Your task to perform on an android device: Open Chrome and go to settings Image 0: 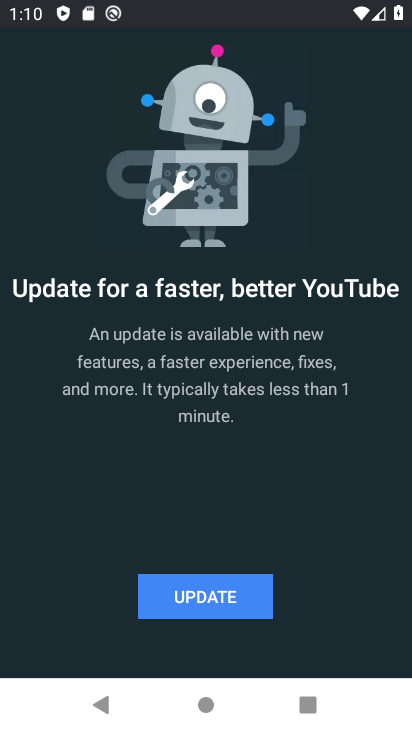
Step 0: press home button
Your task to perform on an android device: Open Chrome and go to settings Image 1: 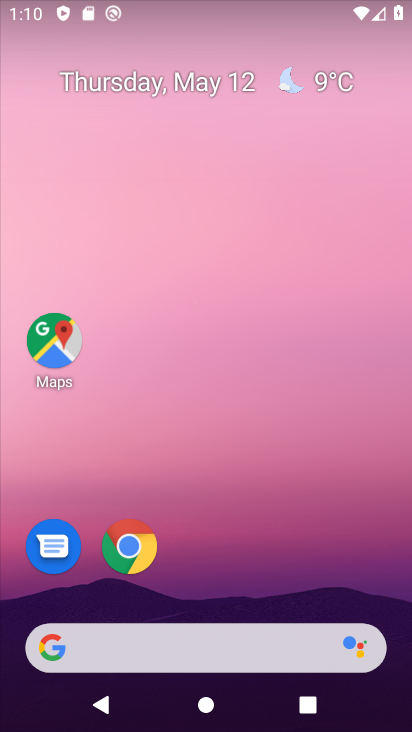
Step 1: drag from (297, 668) to (292, 290)
Your task to perform on an android device: Open Chrome and go to settings Image 2: 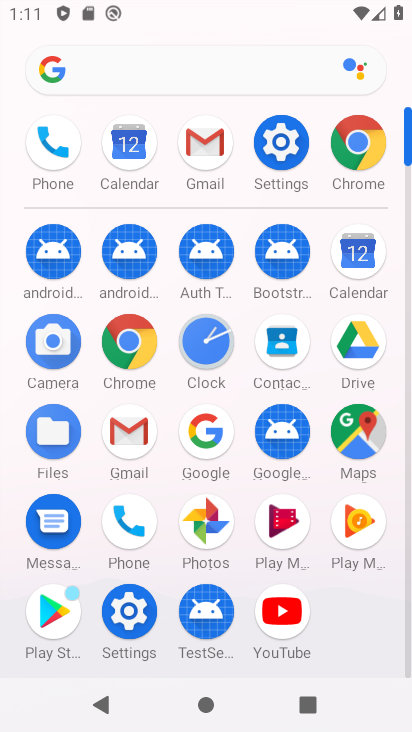
Step 2: click (370, 161)
Your task to perform on an android device: Open Chrome and go to settings Image 3: 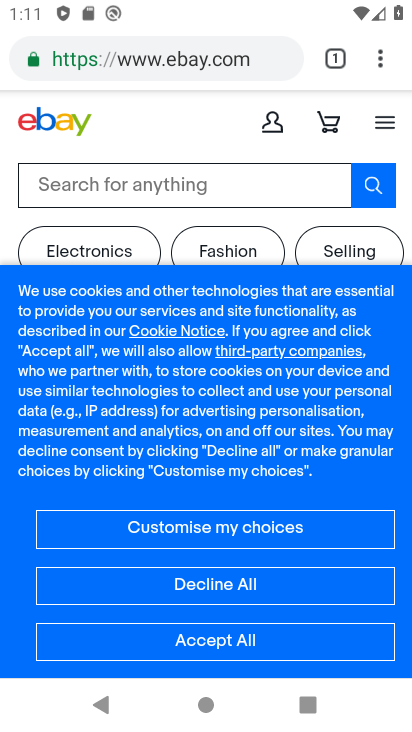
Step 3: click (377, 74)
Your task to perform on an android device: Open Chrome and go to settings Image 4: 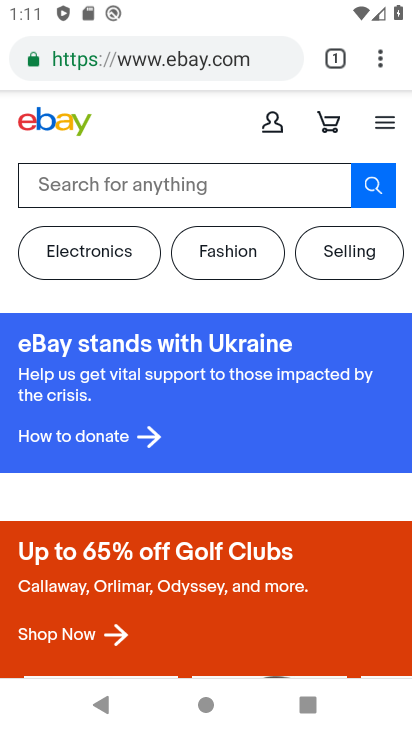
Step 4: click (374, 65)
Your task to perform on an android device: Open Chrome and go to settings Image 5: 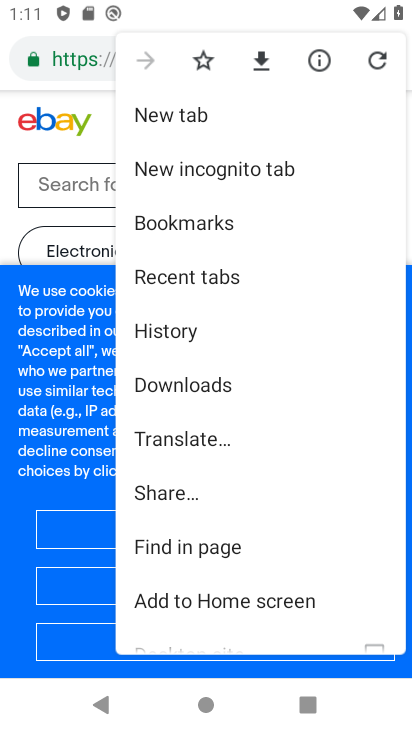
Step 5: drag from (208, 557) to (350, 338)
Your task to perform on an android device: Open Chrome and go to settings Image 6: 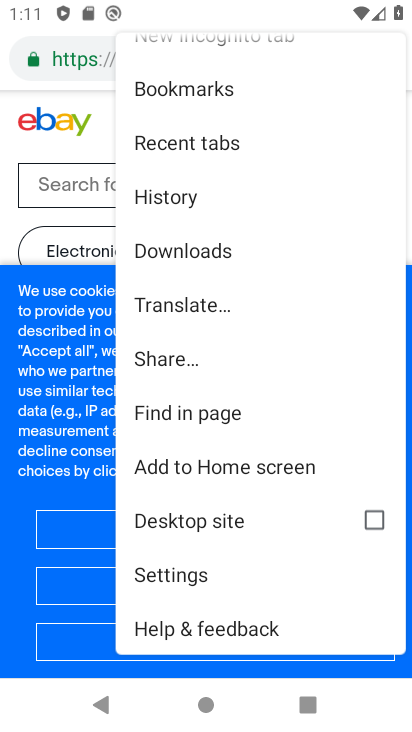
Step 6: click (173, 577)
Your task to perform on an android device: Open Chrome and go to settings Image 7: 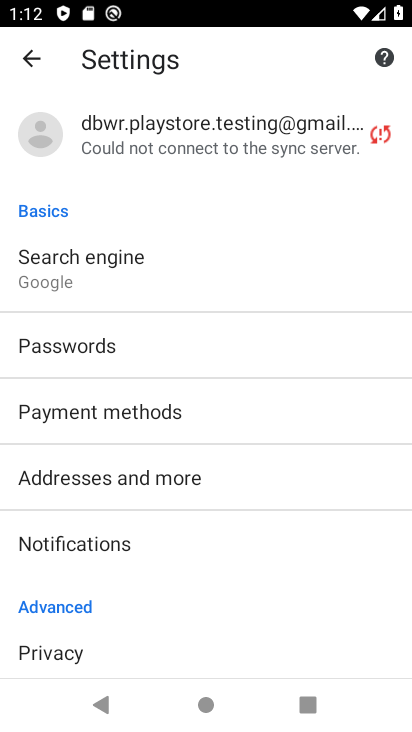
Step 7: task complete